Your task to perform on an android device: Open notification settings Image 0: 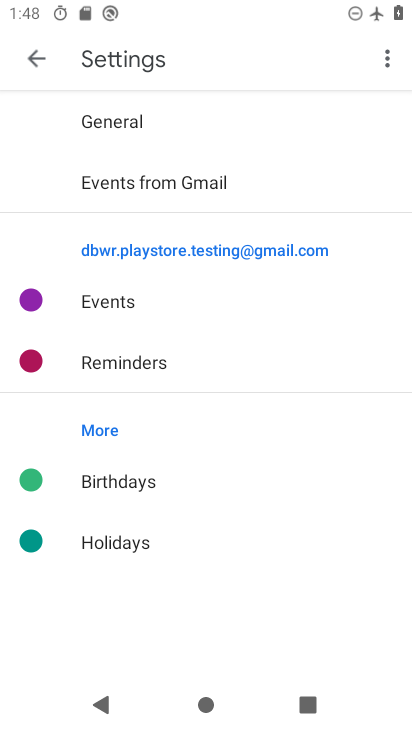
Step 0: press home button
Your task to perform on an android device: Open notification settings Image 1: 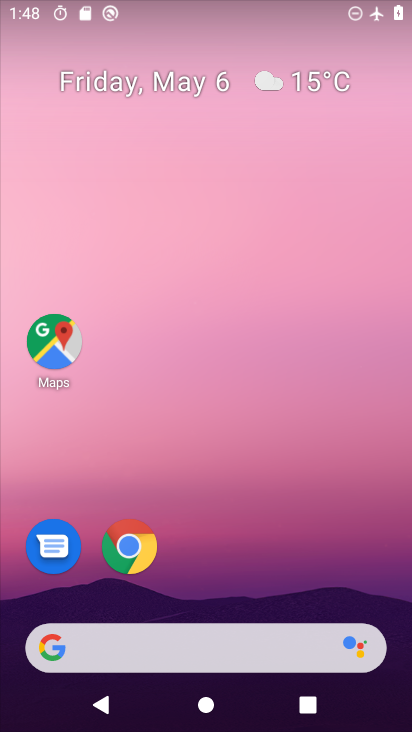
Step 1: drag from (246, 576) to (282, 155)
Your task to perform on an android device: Open notification settings Image 2: 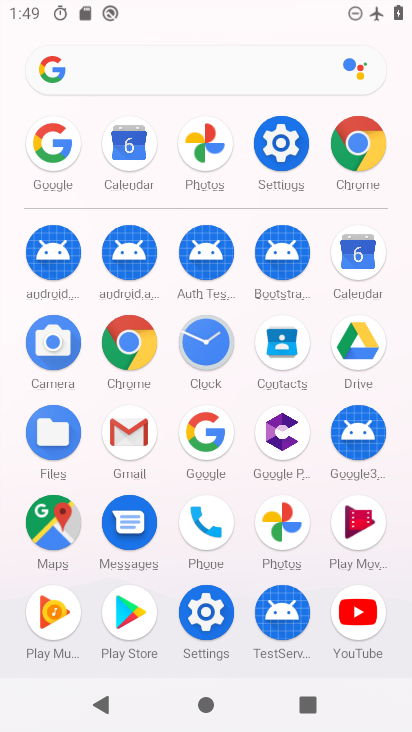
Step 2: click (287, 144)
Your task to perform on an android device: Open notification settings Image 3: 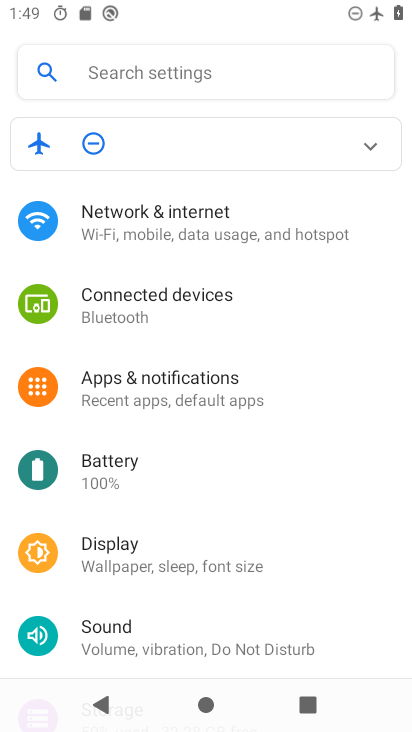
Step 3: click (178, 397)
Your task to perform on an android device: Open notification settings Image 4: 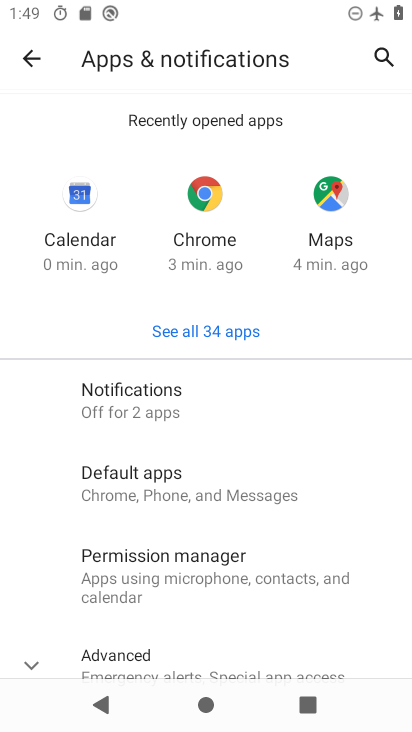
Step 4: task complete